Your task to perform on an android device: Look up the top rated 18v miter saw on Home Depot. Image 0: 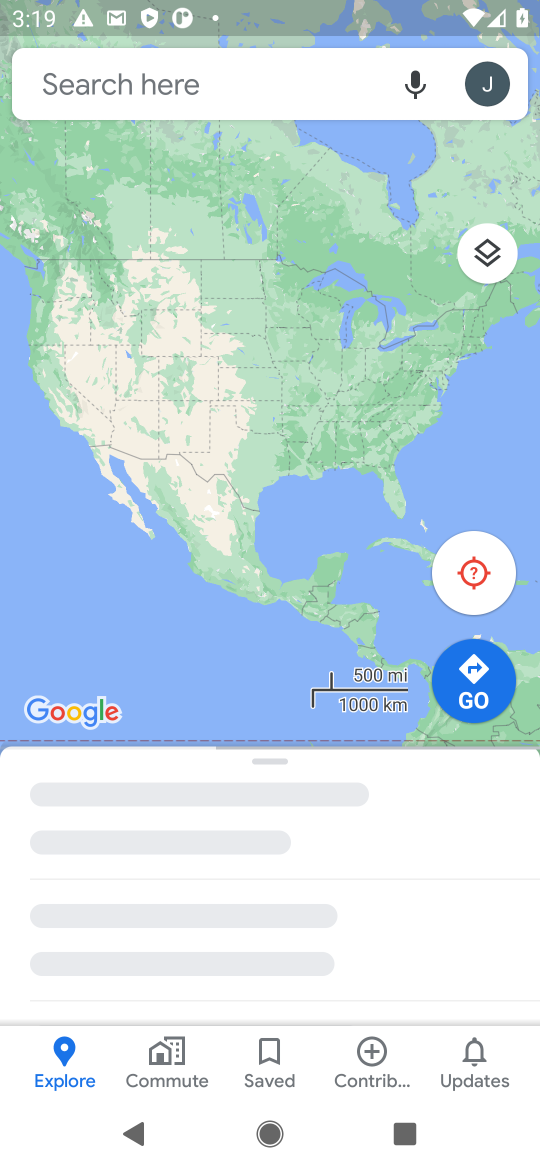
Step 0: press home button
Your task to perform on an android device: Look up the top rated 18v miter saw on Home Depot. Image 1: 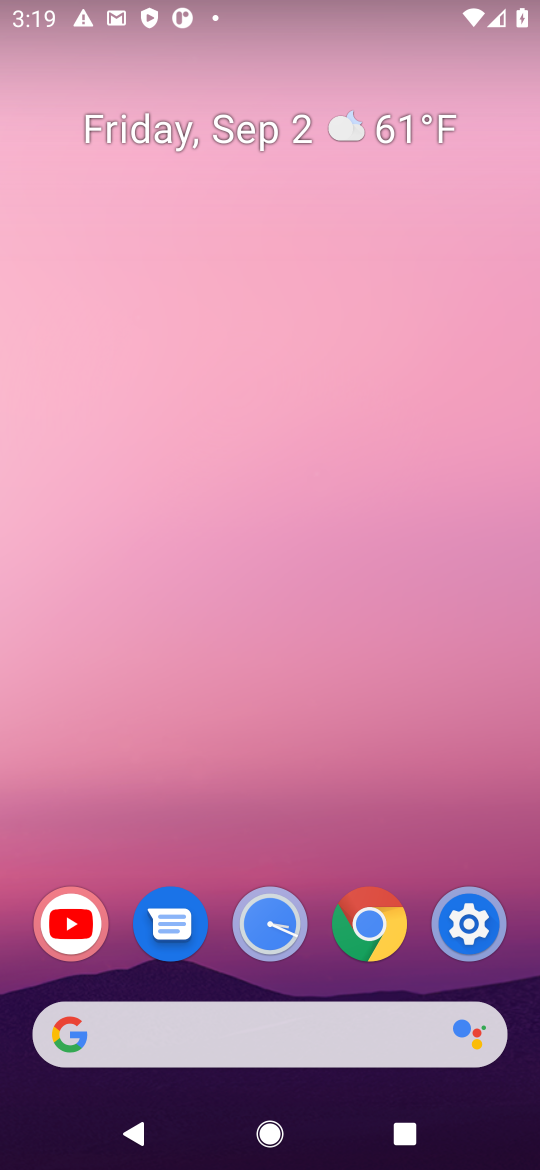
Step 1: click (395, 1027)
Your task to perform on an android device: Look up the top rated 18v miter saw on Home Depot. Image 2: 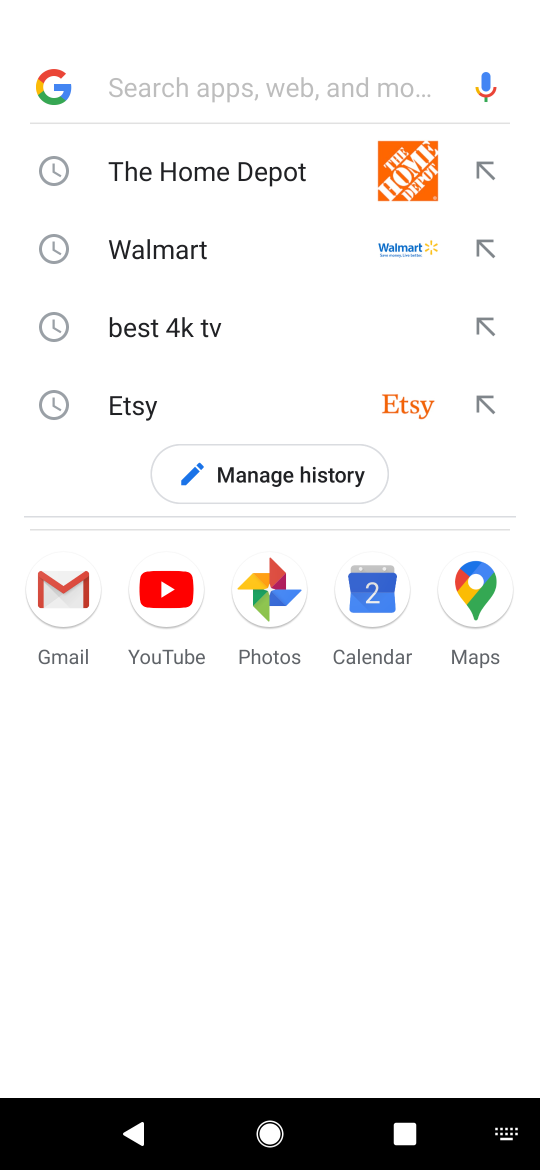
Step 2: press enter
Your task to perform on an android device: Look up the top rated 18v miter saw on Home Depot. Image 3: 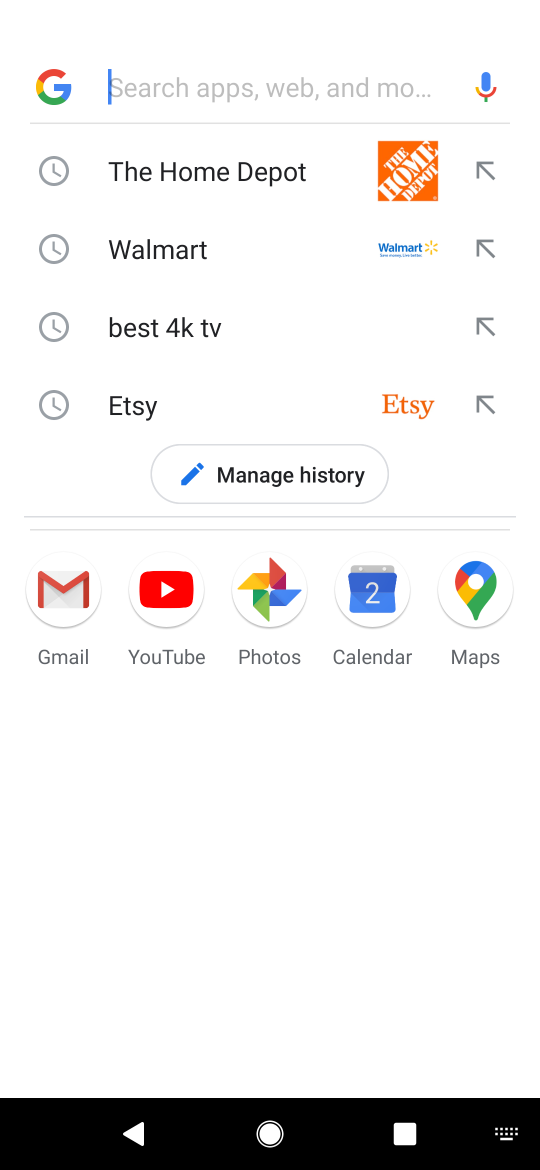
Step 3: type "home depot"
Your task to perform on an android device: Look up the top rated 18v miter saw on Home Depot. Image 4: 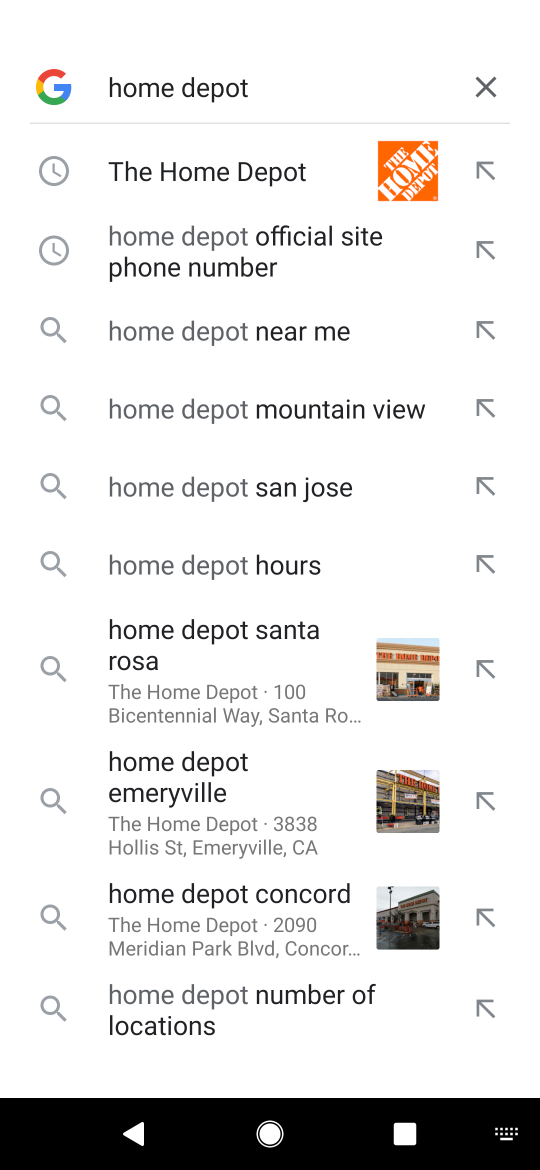
Step 4: click (293, 161)
Your task to perform on an android device: Look up the top rated 18v miter saw on Home Depot. Image 5: 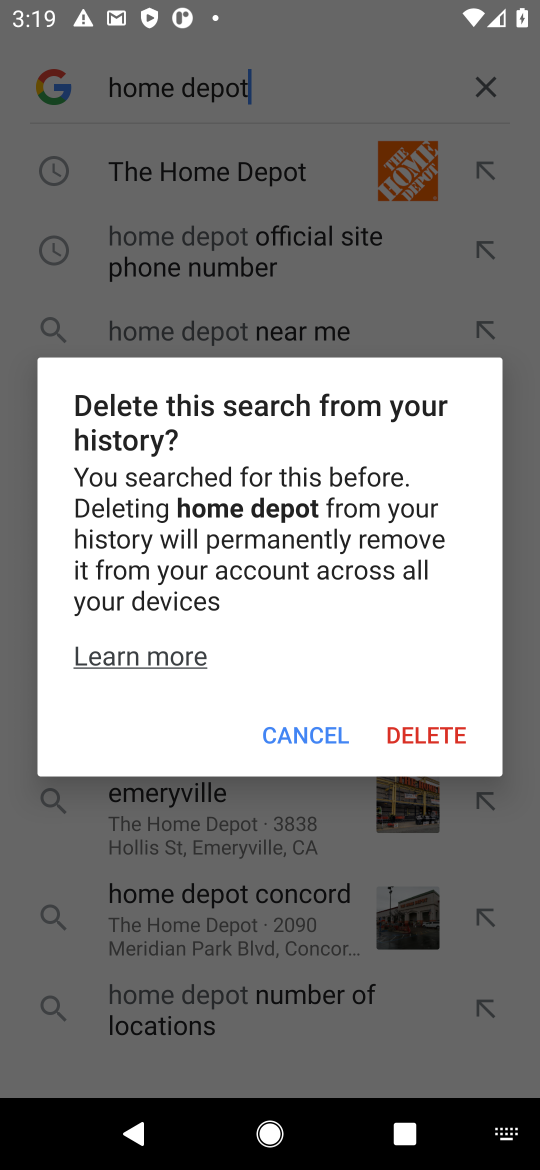
Step 5: click (297, 738)
Your task to perform on an android device: Look up the top rated 18v miter saw on Home Depot. Image 6: 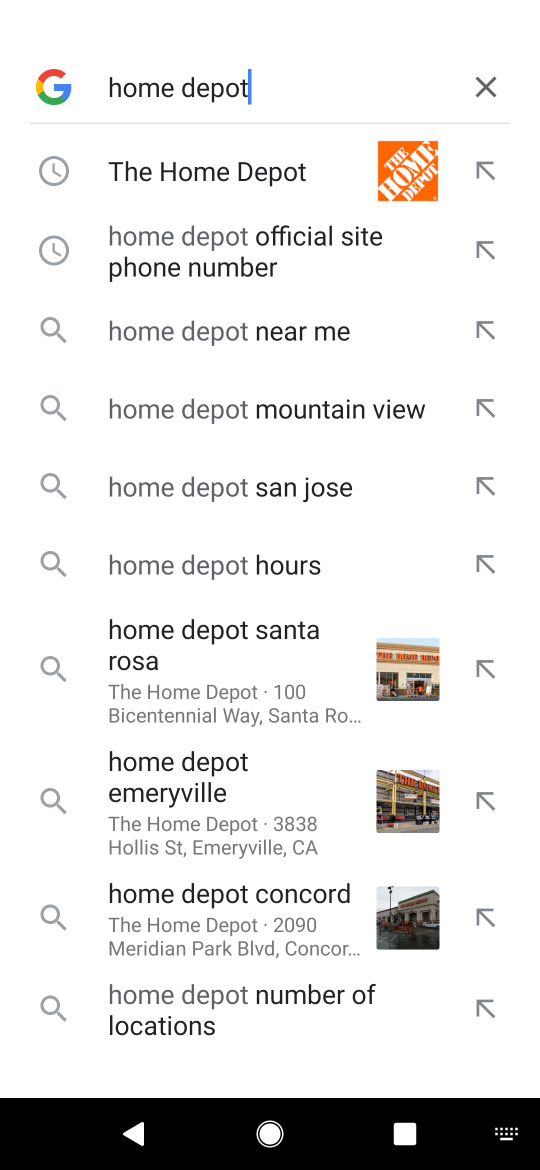
Step 6: click (276, 180)
Your task to perform on an android device: Look up the top rated 18v miter saw on Home Depot. Image 7: 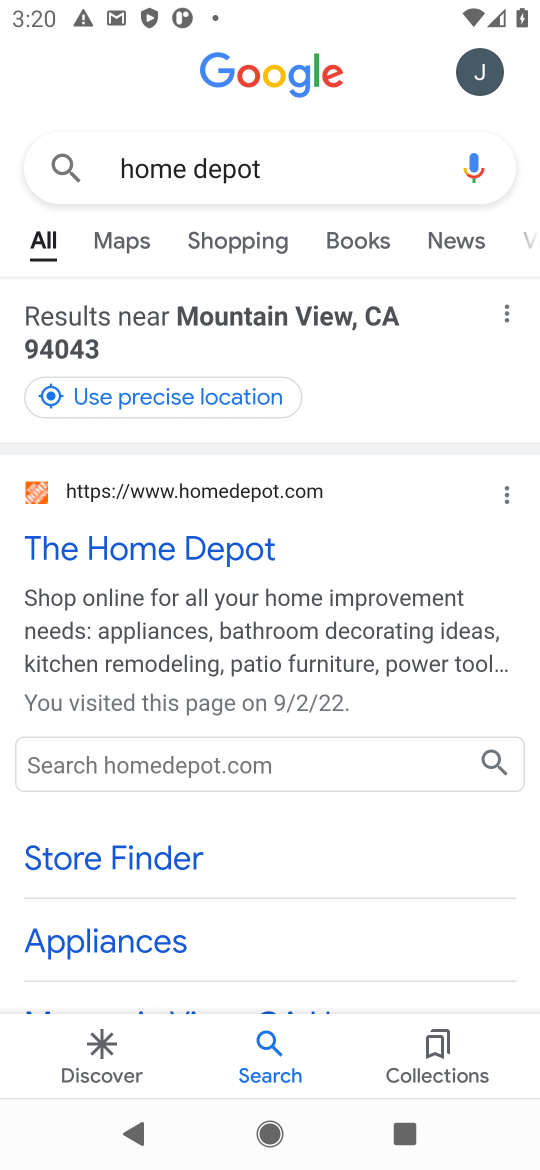
Step 7: click (224, 540)
Your task to perform on an android device: Look up the top rated 18v miter saw on Home Depot. Image 8: 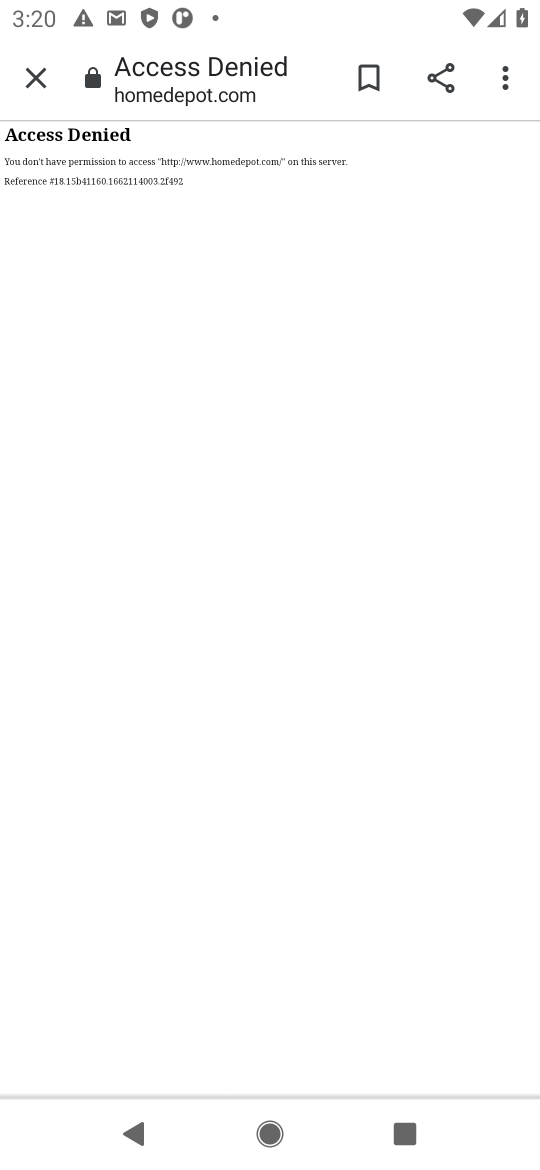
Step 8: task complete